Your task to perform on an android device: Open accessibility settings Image 0: 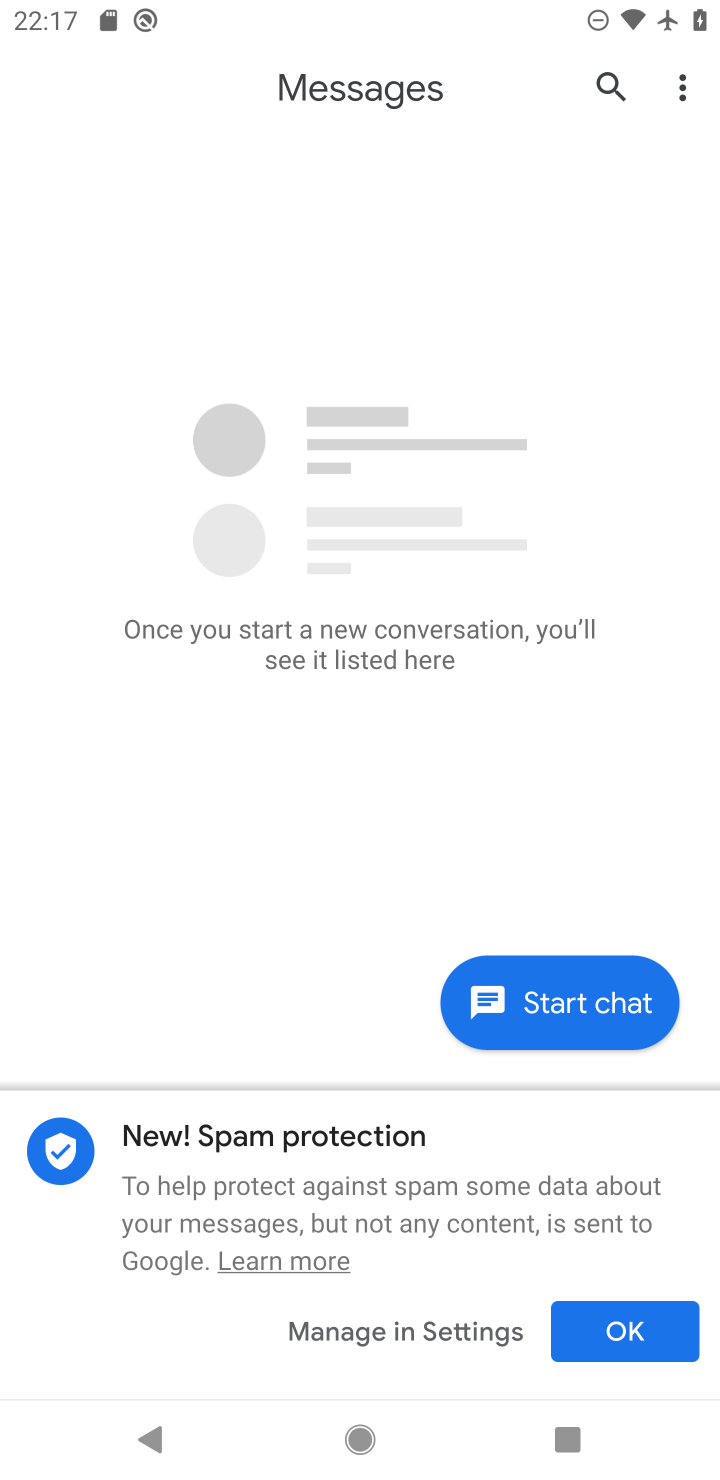
Step 0: press home button
Your task to perform on an android device: Open accessibility settings Image 1: 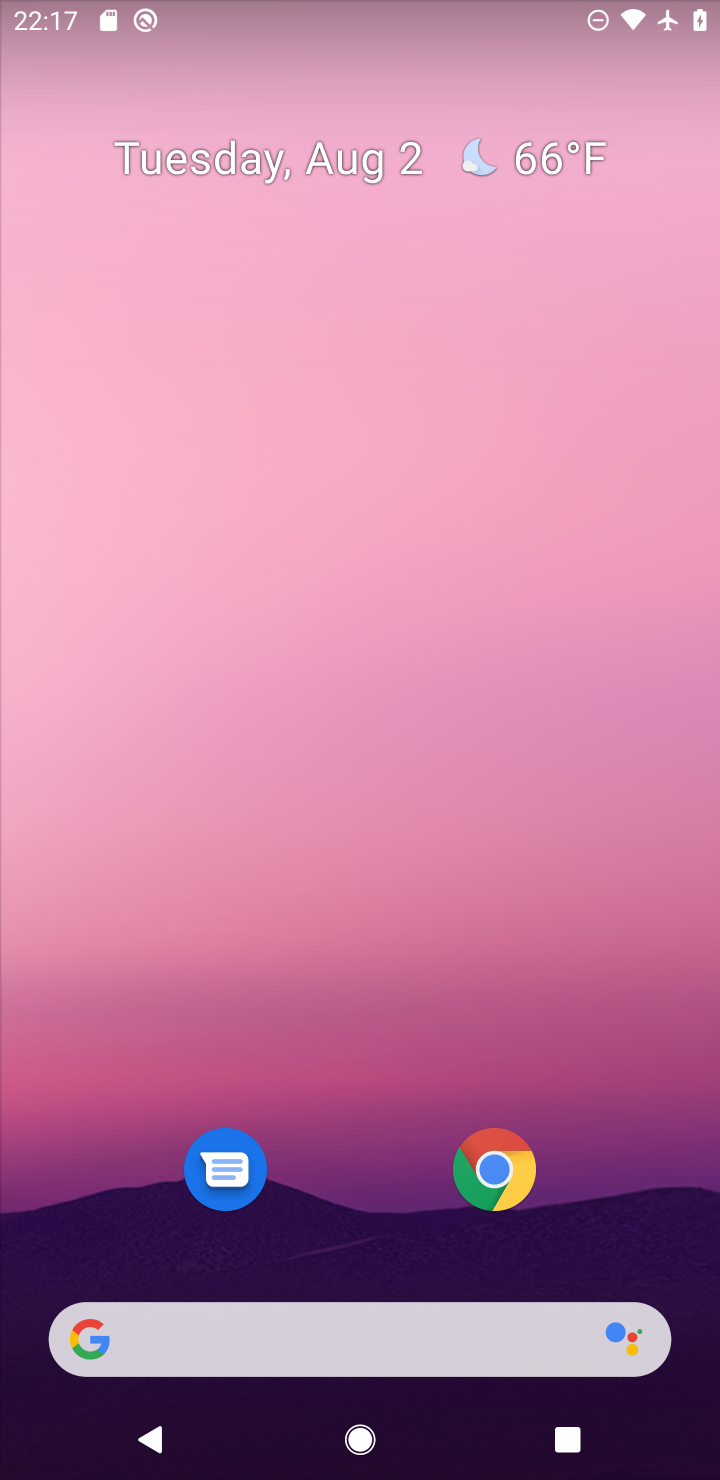
Step 1: drag from (348, 1244) to (344, 471)
Your task to perform on an android device: Open accessibility settings Image 2: 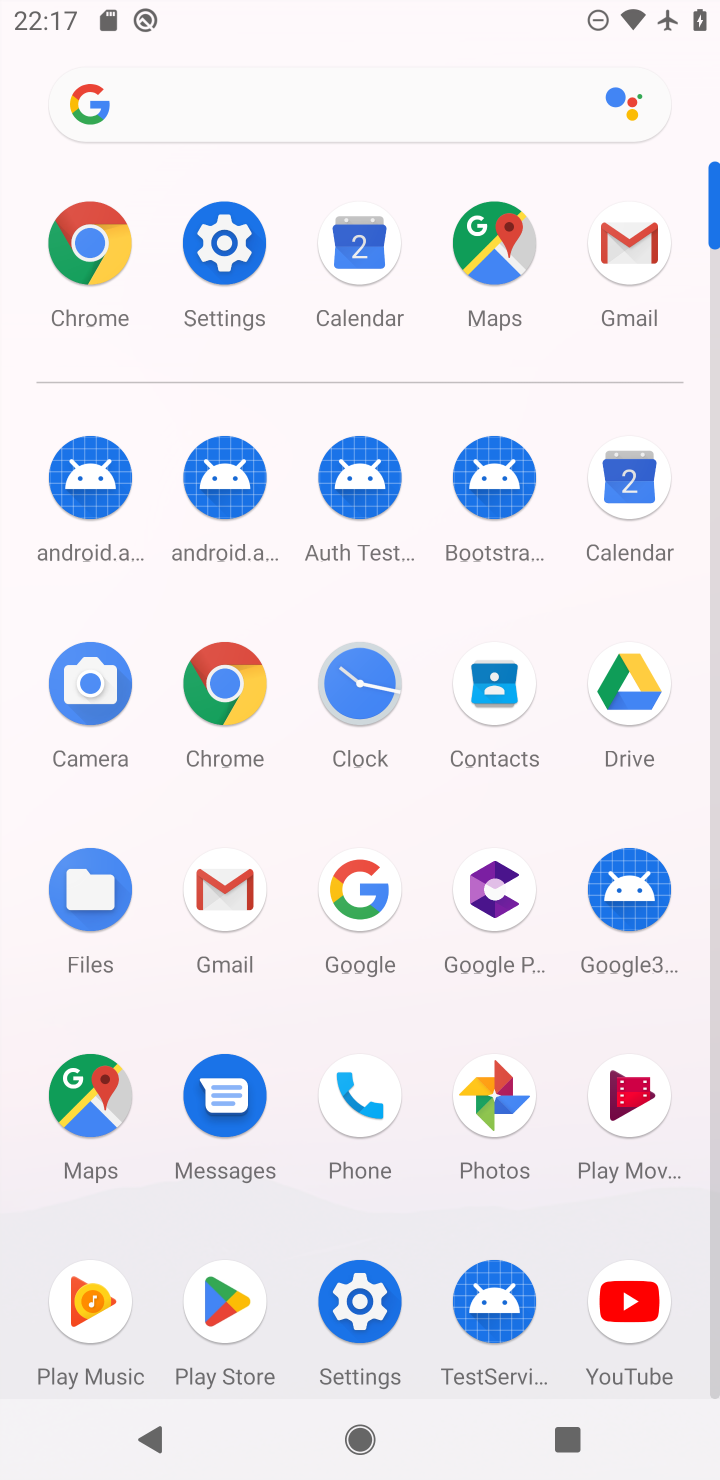
Step 2: click (223, 248)
Your task to perform on an android device: Open accessibility settings Image 3: 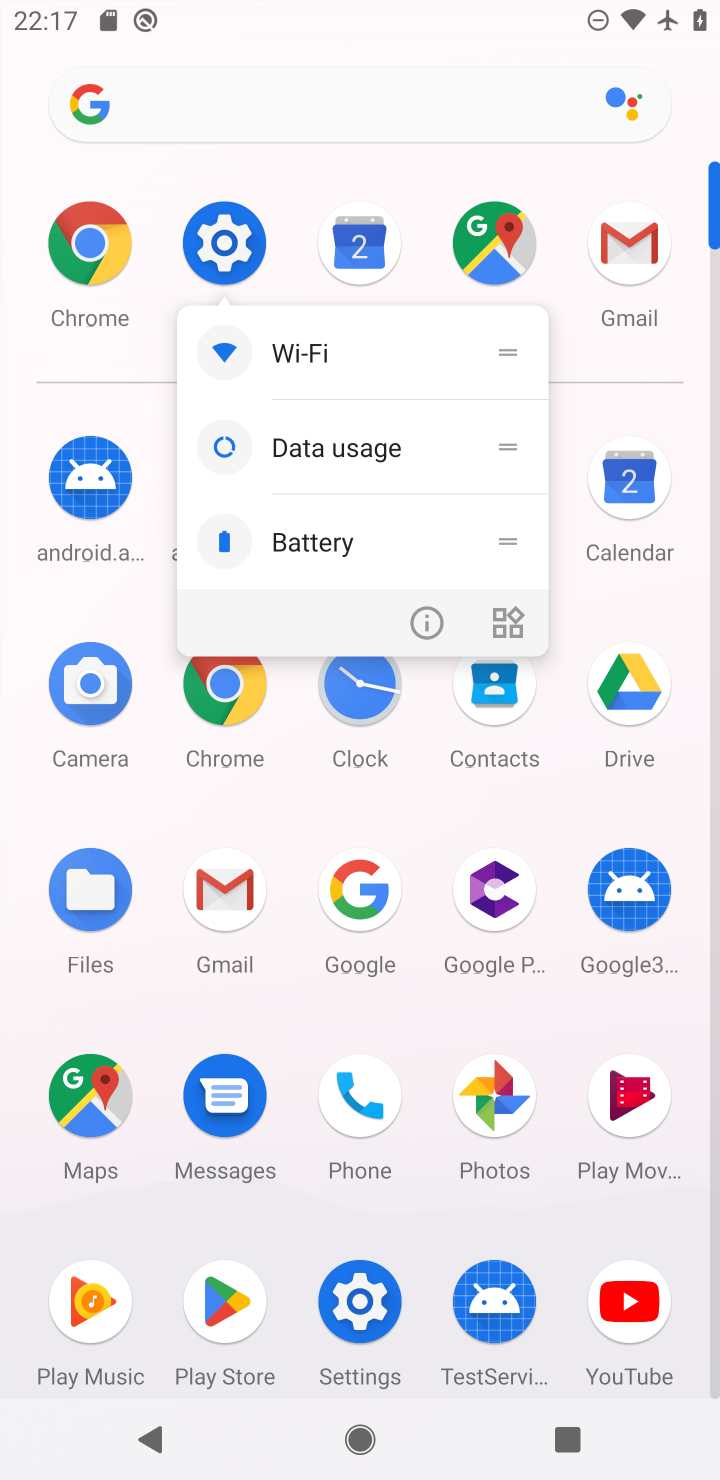
Step 3: click (214, 232)
Your task to perform on an android device: Open accessibility settings Image 4: 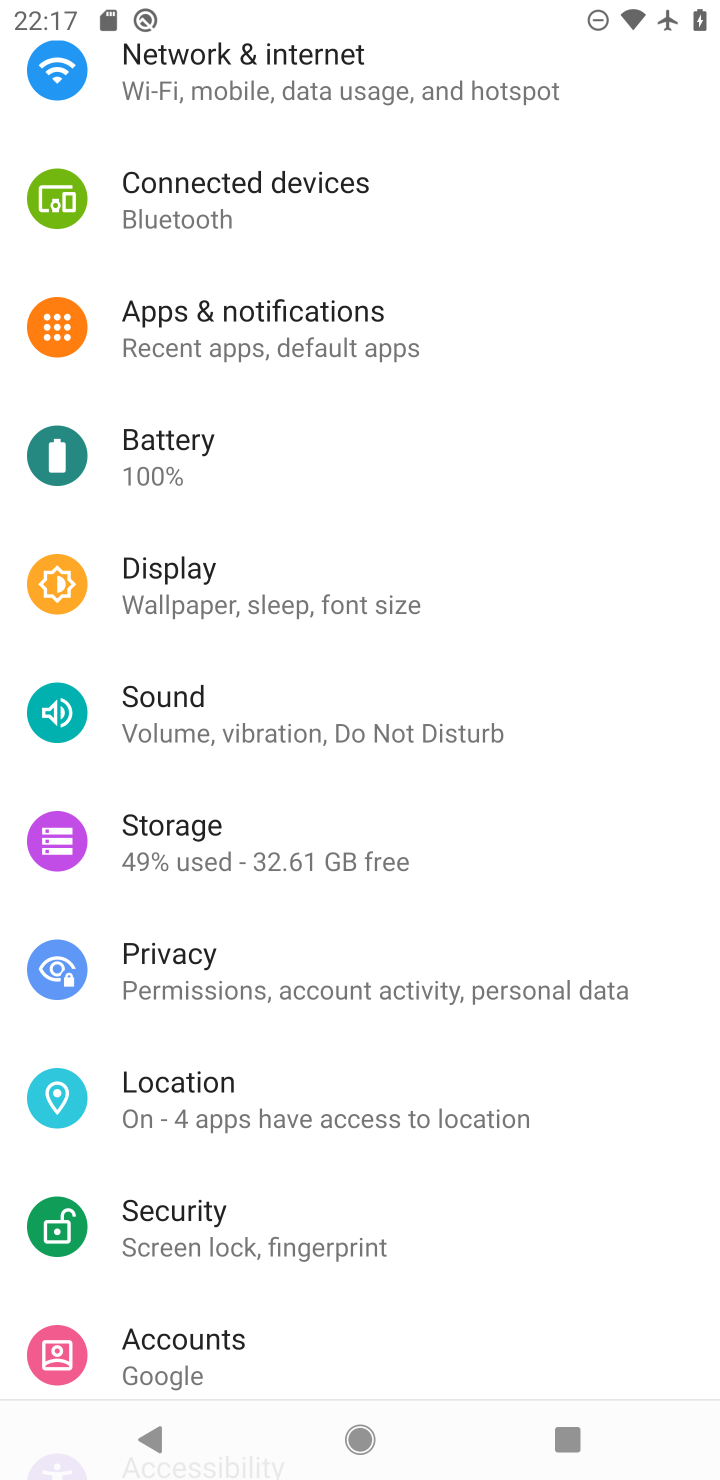
Step 4: drag from (335, 1325) to (335, 669)
Your task to perform on an android device: Open accessibility settings Image 5: 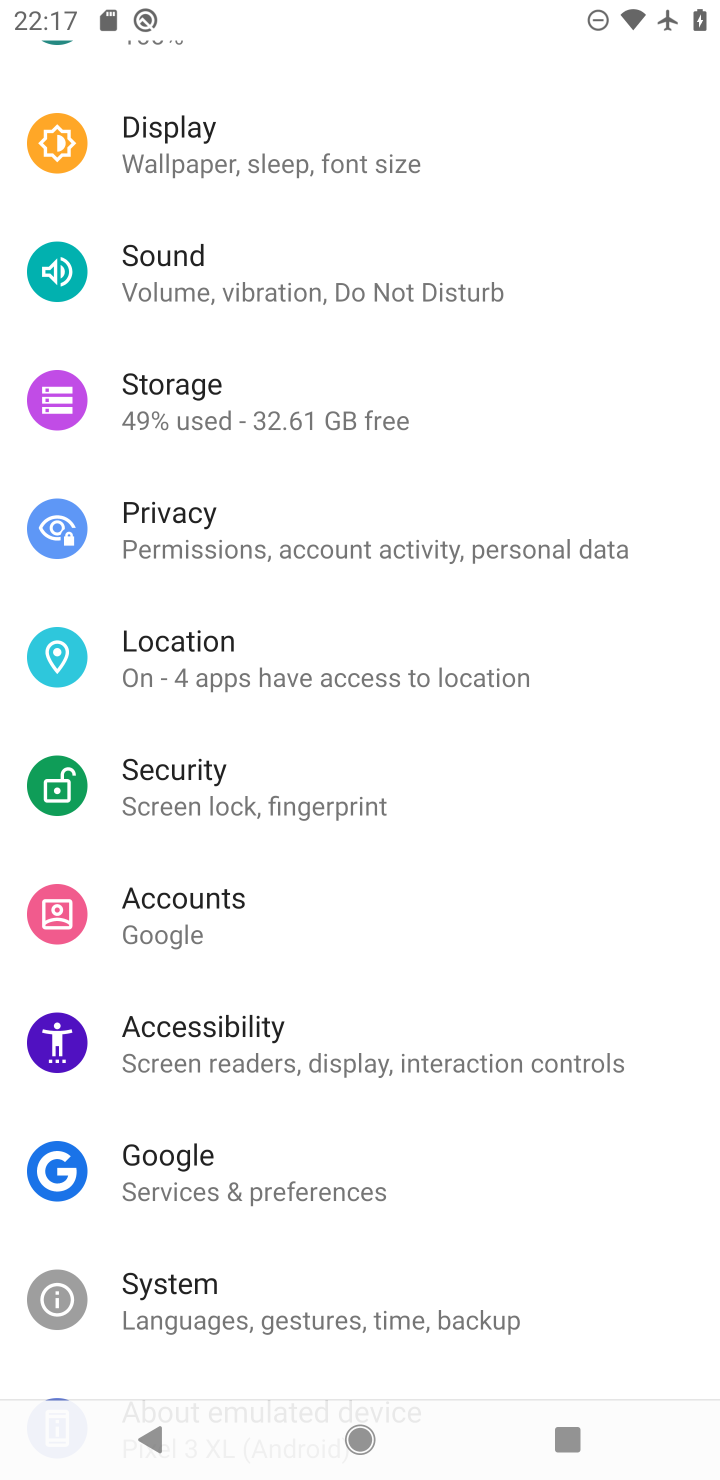
Step 5: click (180, 1049)
Your task to perform on an android device: Open accessibility settings Image 6: 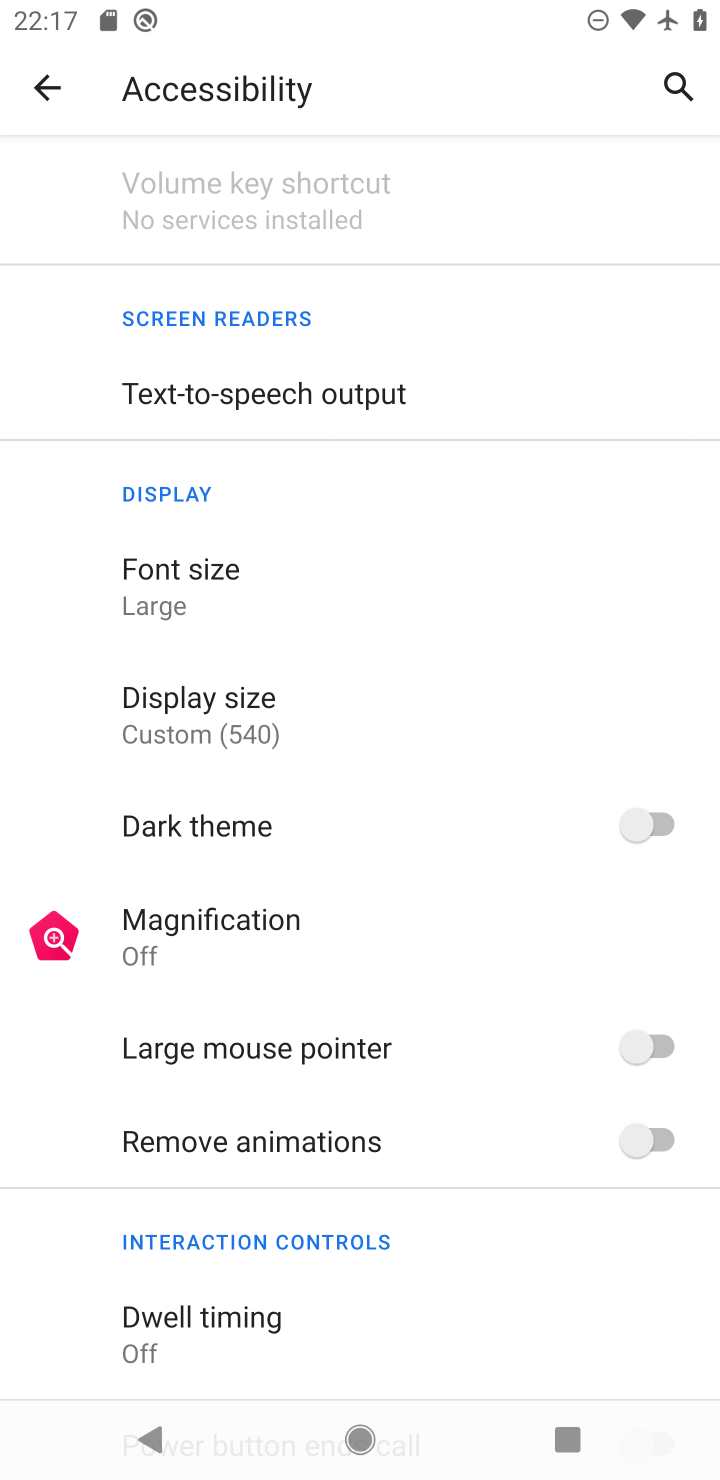
Step 6: task complete